Your task to perform on an android device: Open the web browser Image 0: 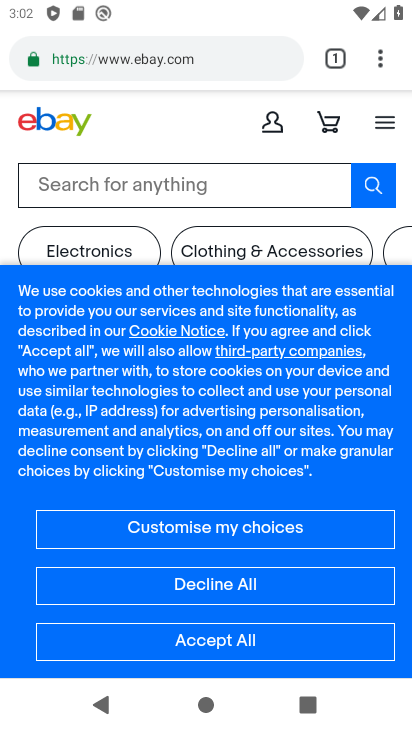
Step 0: press home button
Your task to perform on an android device: Open the web browser Image 1: 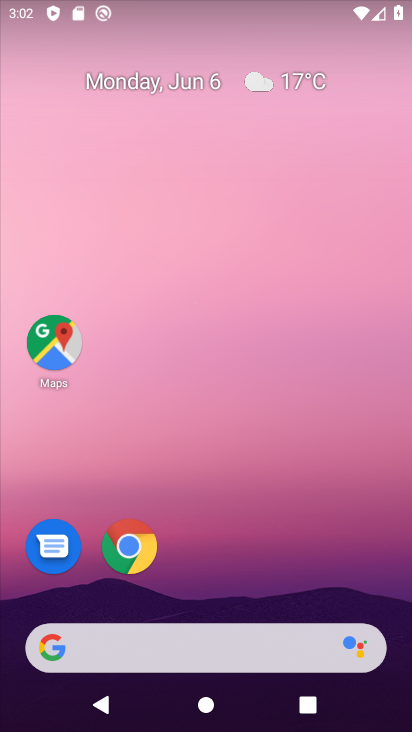
Step 1: drag from (302, 496) to (330, 67)
Your task to perform on an android device: Open the web browser Image 2: 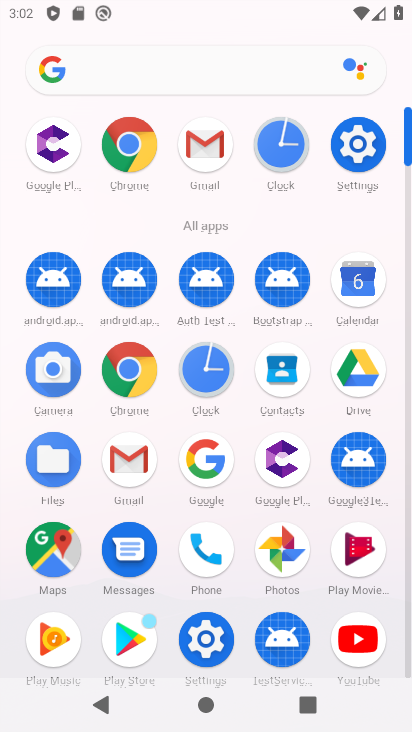
Step 2: click (135, 134)
Your task to perform on an android device: Open the web browser Image 3: 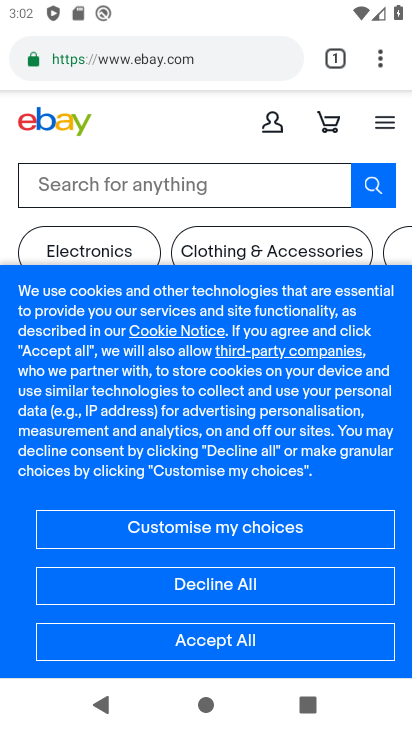
Step 3: task complete